Your task to perform on an android device: Open Youtube and go to the subscriptions tab Image 0: 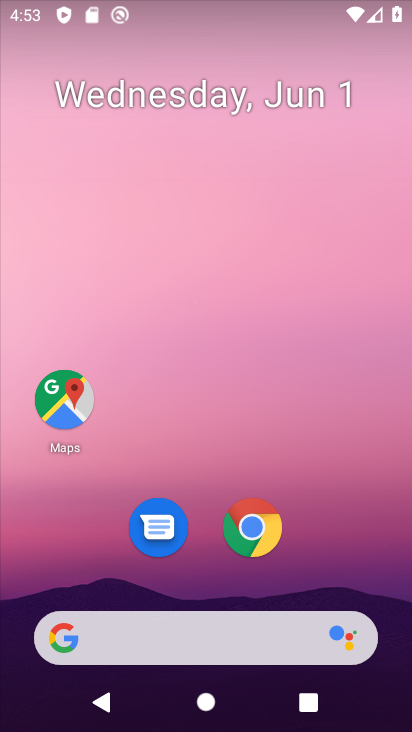
Step 0: drag from (86, 586) to (210, 107)
Your task to perform on an android device: Open Youtube and go to the subscriptions tab Image 1: 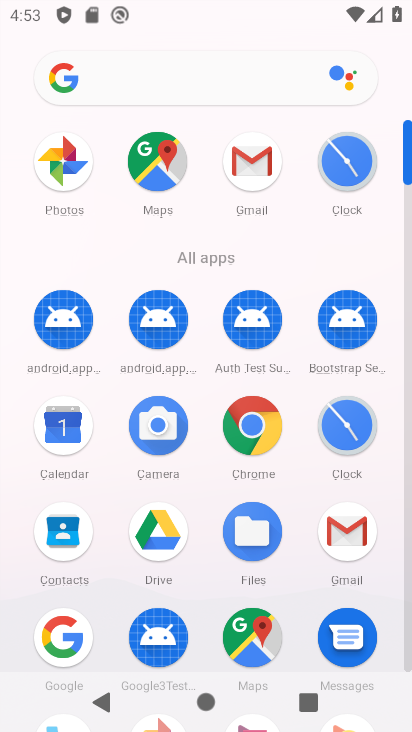
Step 1: drag from (156, 499) to (256, 236)
Your task to perform on an android device: Open Youtube and go to the subscriptions tab Image 2: 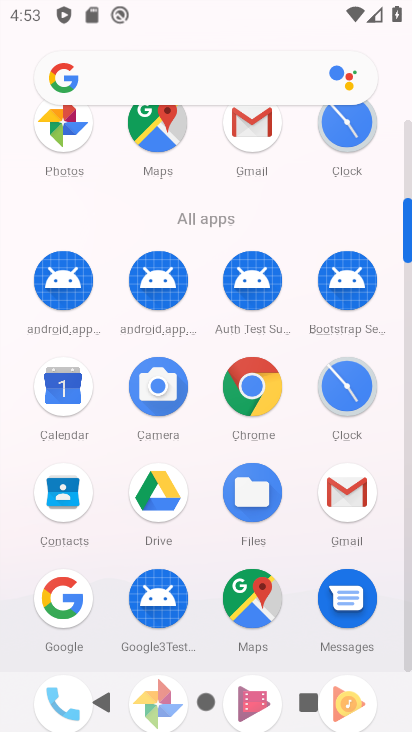
Step 2: drag from (161, 628) to (262, 231)
Your task to perform on an android device: Open Youtube and go to the subscriptions tab Image 3: 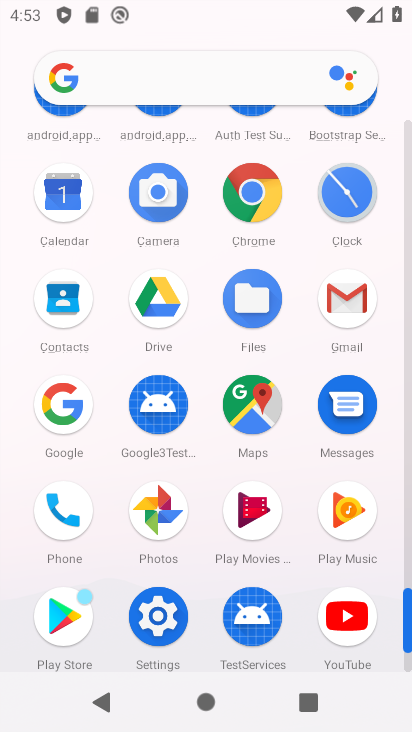
Step 3: click (344, 640)
Your task to perform on an android device: Open Youtube and go to the subscriptions tab Image 4: 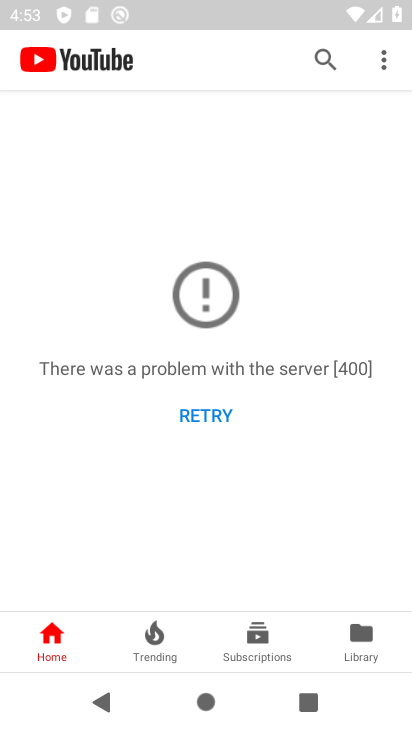
Step 4: click (272, 650)
Your task to perform on an android device: Open Youtube and go to the subscriptions tab Image 5: 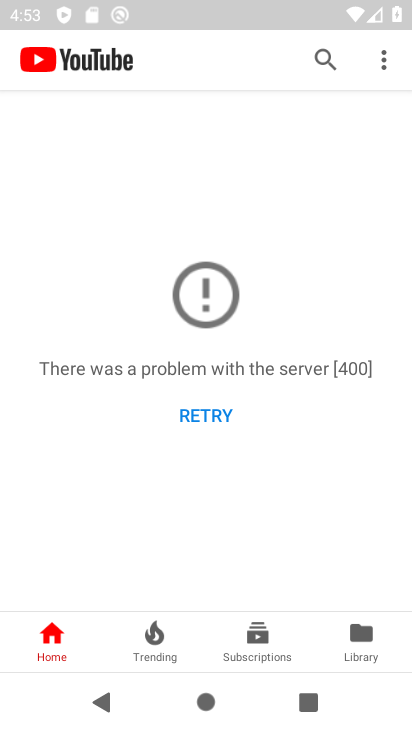
Step 5: click (270, 651)
Your task to perform on an android device: Open Youtube and go to the subscriptions tab Image 6: 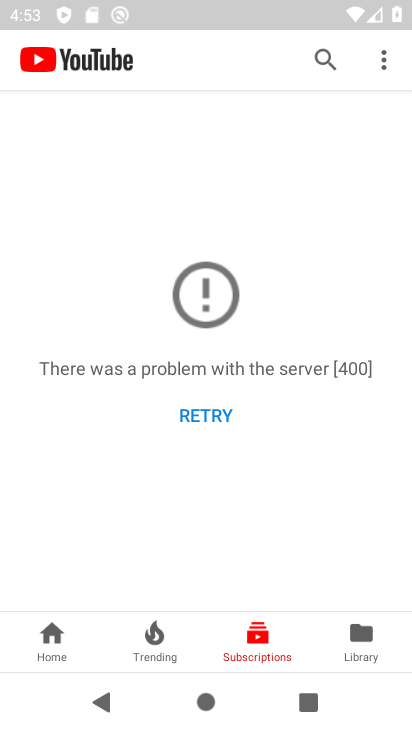
Step 6: task complete